Your task to perform on an android device: clear history in the chrome app Image 0: 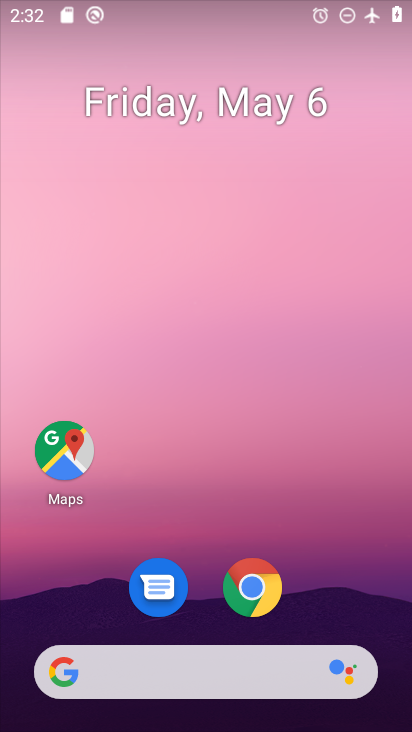
Step 0: click (264, 581)
Your task to perform on an android device: clear history in the chrome app Image 1: 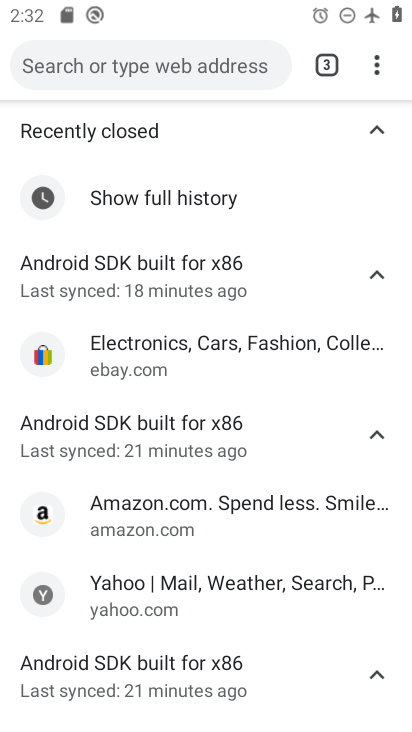
Step 1: drag from (373, 66) to (158, 431)
Your task to perform on an android device: clear history in the chrome app Image 2: 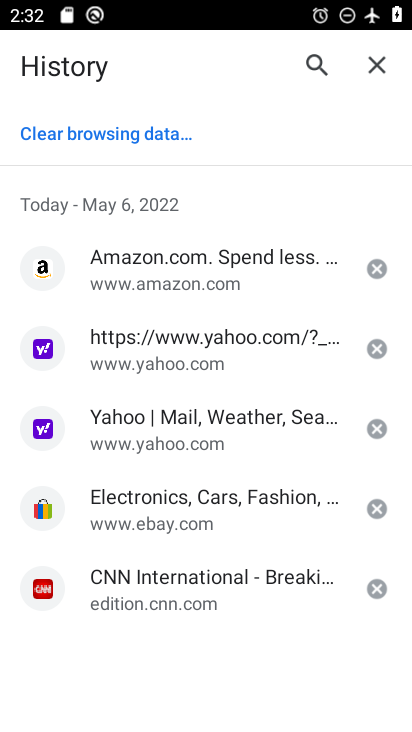
Step 2: click (160, 128)
Your task to perform on an android device: clear history in the chrome app Image 3: 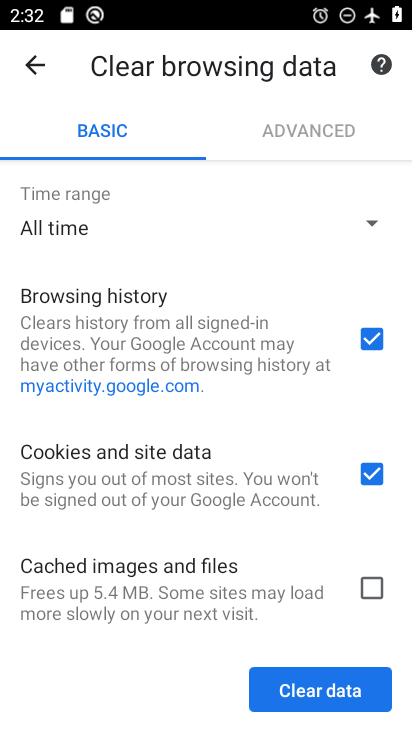
Step 3: click (368, 473)
Your task to perform on an android device: clear history in the chrome app Image 4: 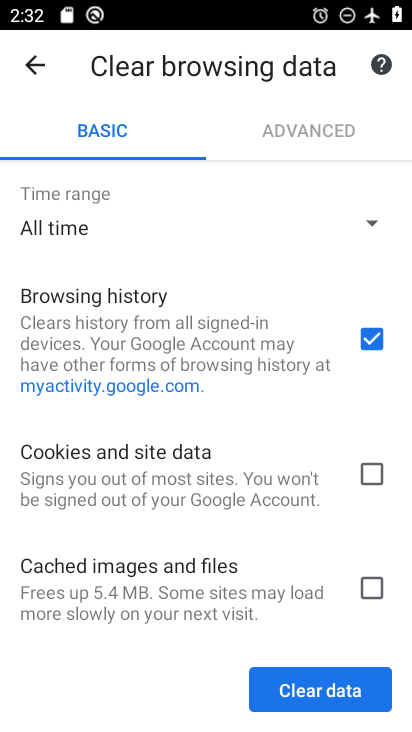
Step 4: click (351, 681)
Your task to perform on an android device: clear history in the chrome app Image 5: 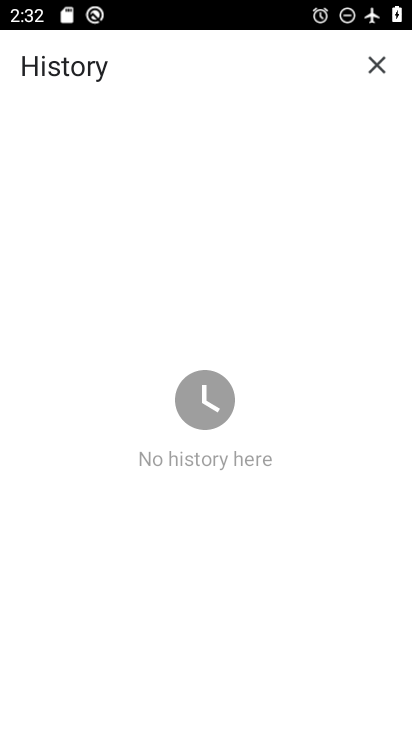
Step 5: task complete